Your task to perform on an android device: Search for seafood restaurants on Google Maps Image 0: 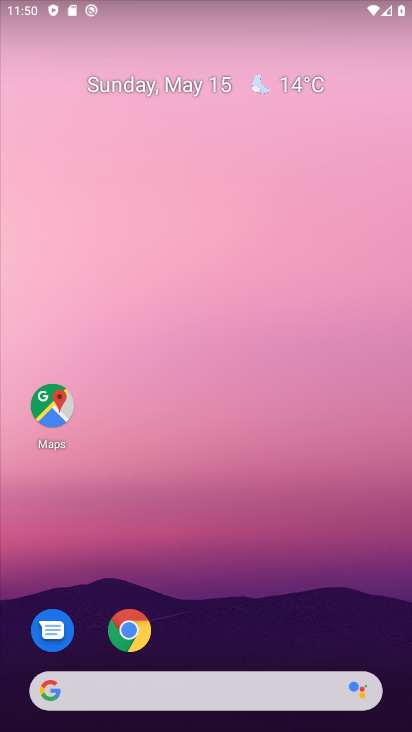
Step 0: click (42, 415)
Your task to perform on an android device: Search for seafood restaurants on Google Maps Image 1: 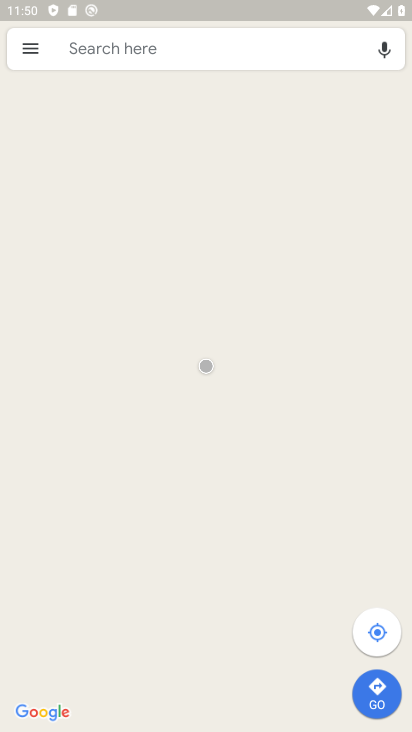
Step 1: click (181, 34)
Your task to perform on an android device: Search for seafood restaurants on Google Maps Image 2: 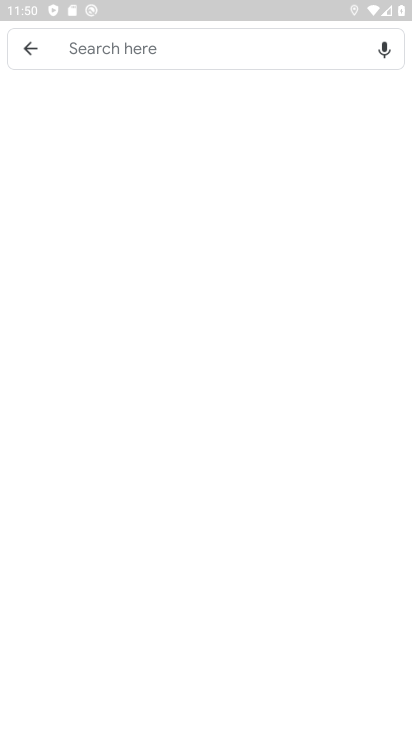
Step 2: click (176, 46)
Your task to perform on an android device: Search for seafood restaurants on Google Maps Image 3: 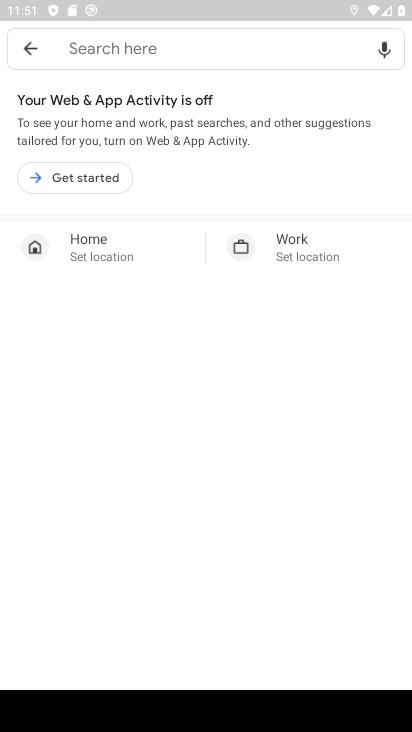
Step 3: drag from (119, 717) to (263, 506)
Your task to perform on an android device: Search for seafood restaurants on Google Maps Image 4: 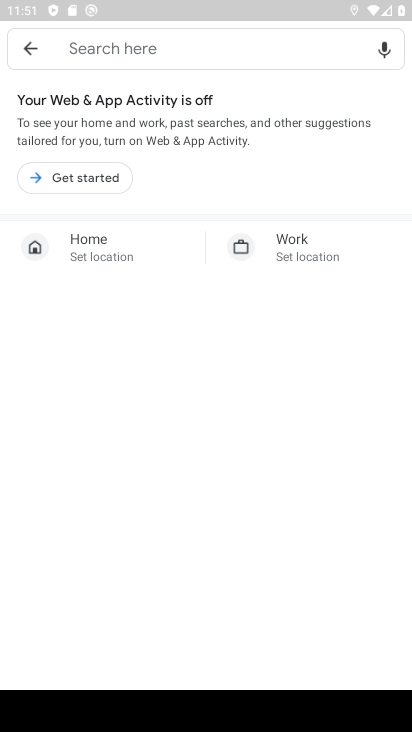
Step 4: click (146, 57)
Your task to perform on an android device: Search for seafood restaurants on Google Maps Image 5: 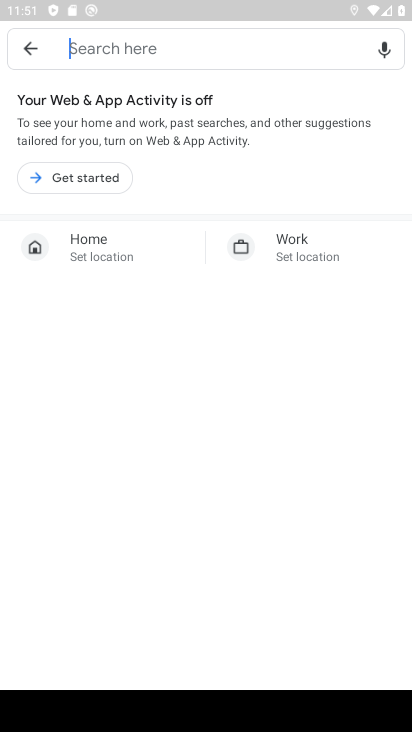
Step 5: type "seafood restaurants"
Your task to perform on an android device: Search for seafood restaurants on Google Maps Image 6: 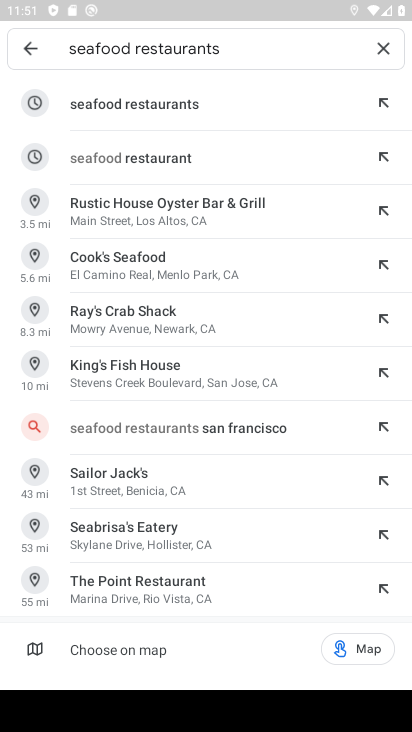
Step 6: click (233, 106)
Your task to perform on an android device: Search for seafood restaurants on Google Maps Image 7: 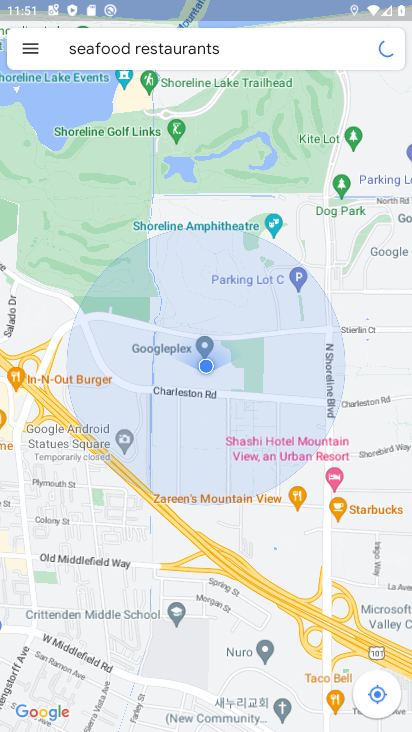
Step 7: task complete